Your task to perform on an android device: find photos in the google photos app Image 0: 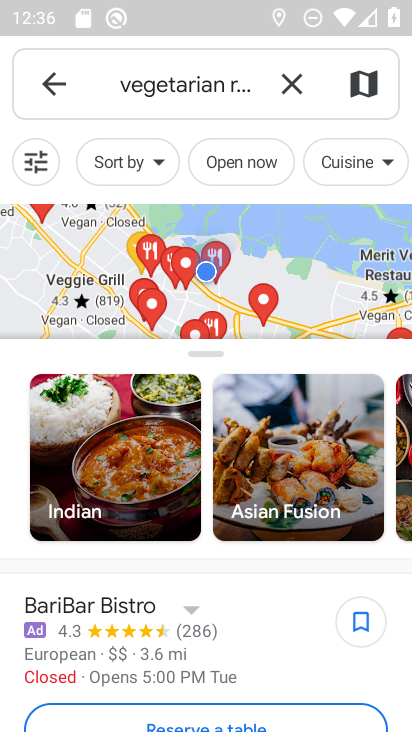
Step 0: press home button
Your task to perform on an android device: find photos in the google photos app Image 1: 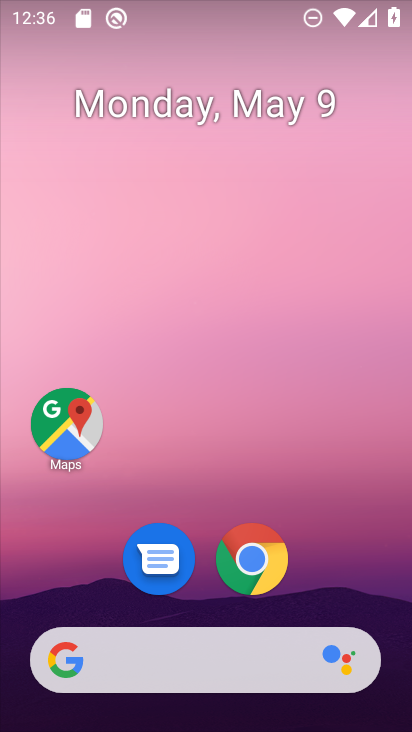
Step 1: drag from (356, 550) to (334, 95)
Your task to perform on an android device: find photos in the google photos app Image 2: 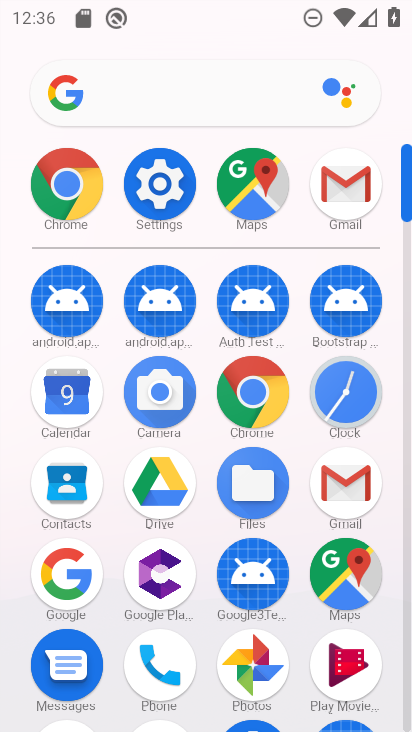
Step 2: click (249, 660)
Your task to perform on an android device: find photos in the google photos app Image 3: 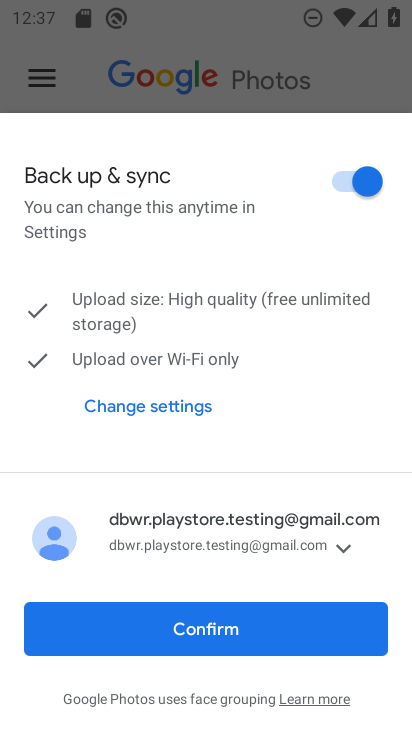
Step 3: click (249, 651)
Your task to perform on an android device: find photos in the google photos app Image 4: 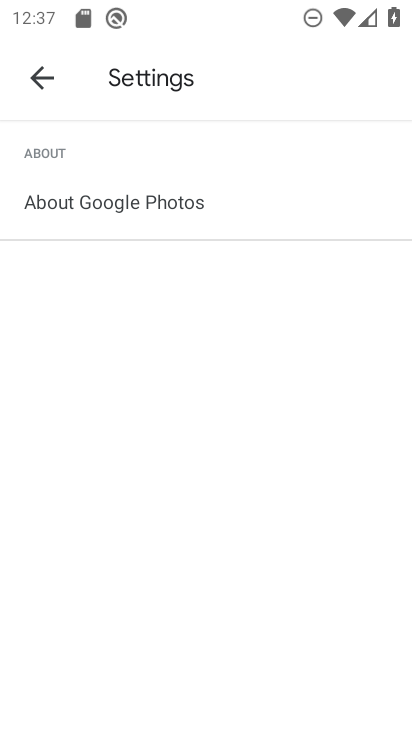
Step 4: click (46, 63)
Your task to perform on an android device: find photos in the google photos app Image 5: 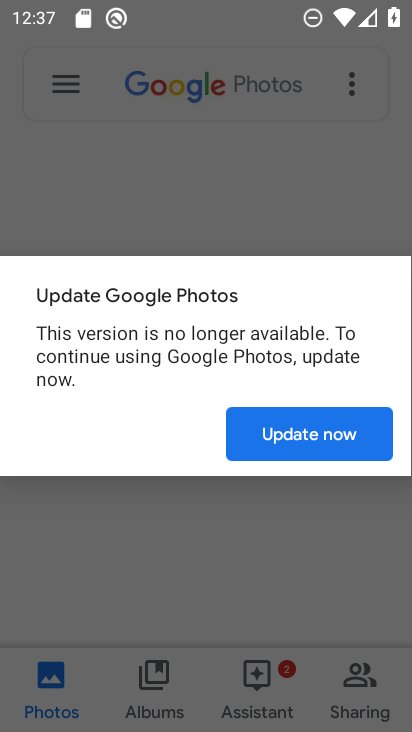
Step 5: click (370, 438)
Your task to perform on an android device: find photos in the google photos app Image 6: 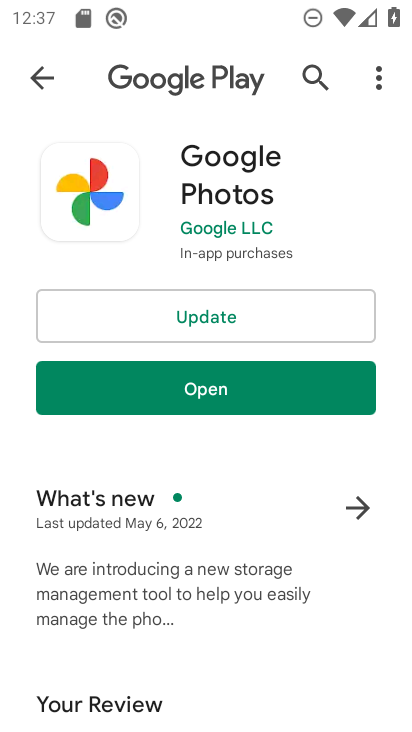
Step 6: click (199, 320)
Your task to perform on an android device: find photos in the google photos app Image 7: 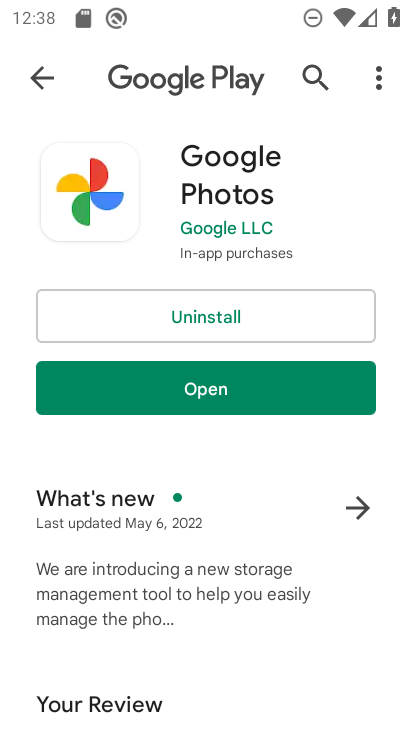
Step 7: click (175, 397)
Your task to perform on an android device: find photos in the google photos app Image 8: 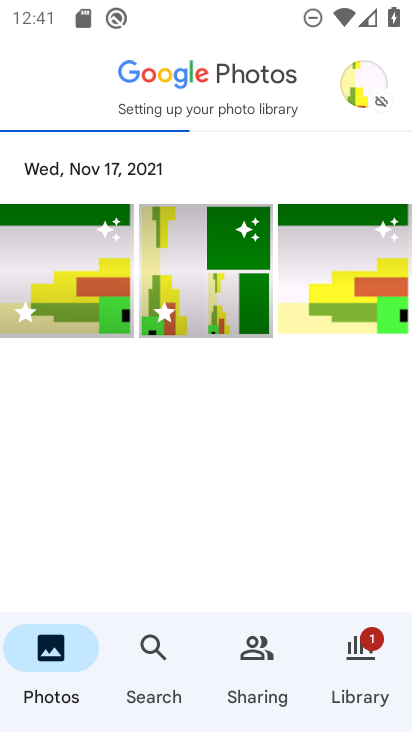
Step 8: click (115, 316)
Your task to perform on an android device: find photos in the google photos app Image 9: 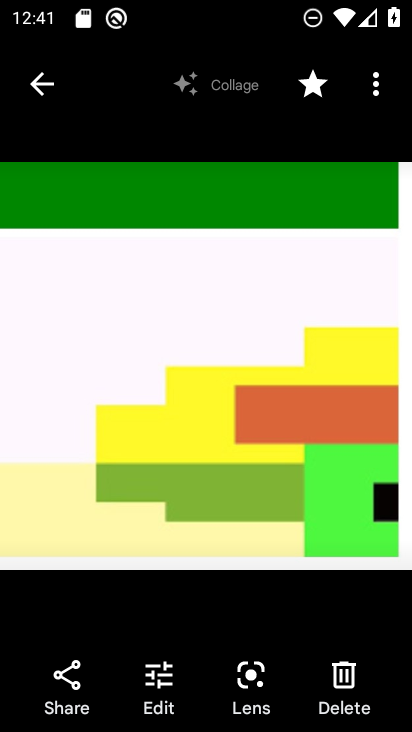
Step 9: task complete